Your task to perform on an android device: Go to Maps Image 0: 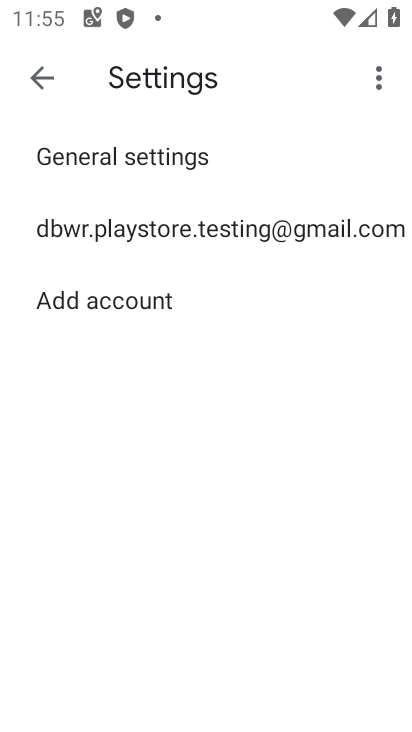
Step 0: press home button
Your task to perform on an android device: Go to Maps Image 1: 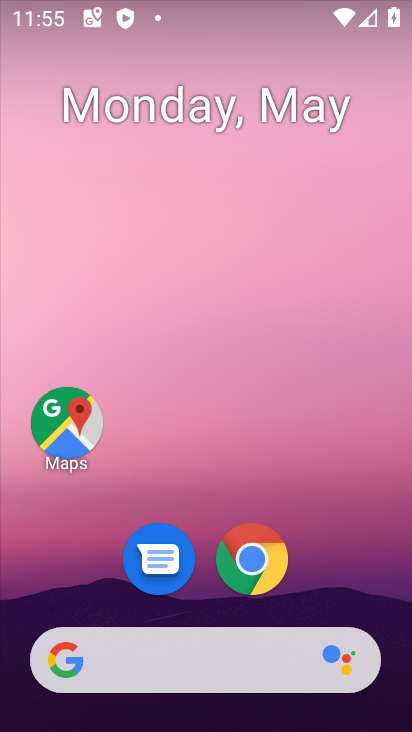
Step 1: click (75, 437)
Your task to perform on an android device: Go to Maps Image 2: 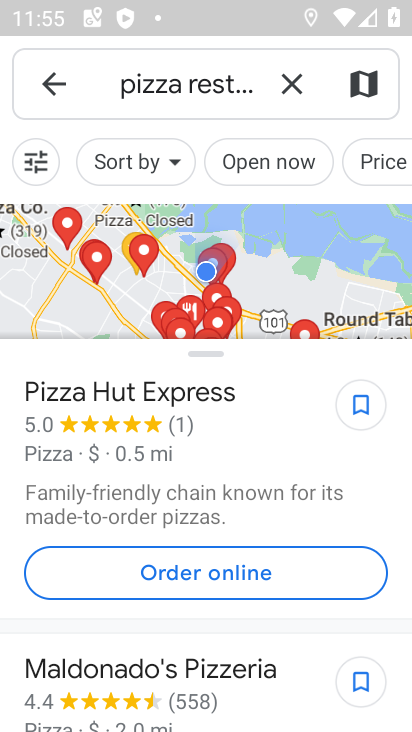
Step 2: task complete